Your task to perform on an android device: Search for Italian restaurants on Maps Image 0: 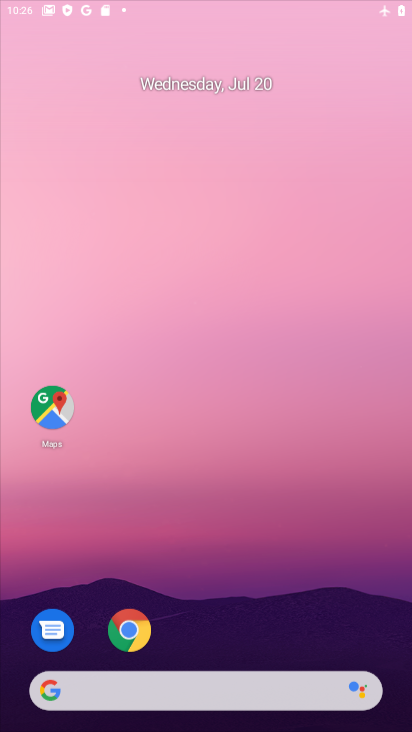
Step 0: click (253, 74)
Your task to perform on an android device: Search for Italian restaurants on Maps Image 1: 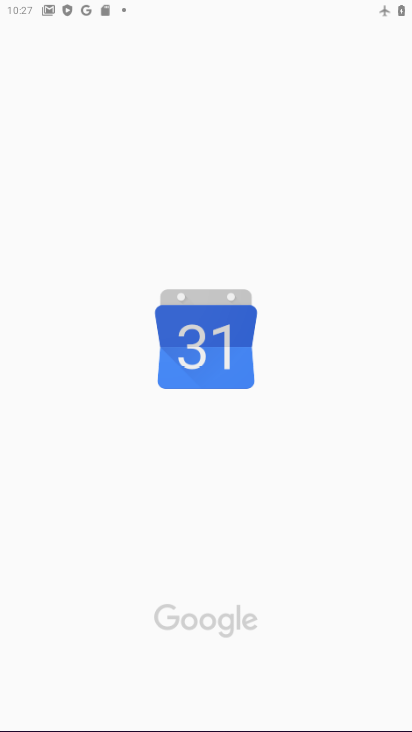
Step 1: drag from (193, 606) to (202, 104)
Your task to perform on an android device: Search for Italian restaurants on Maps Image 2: 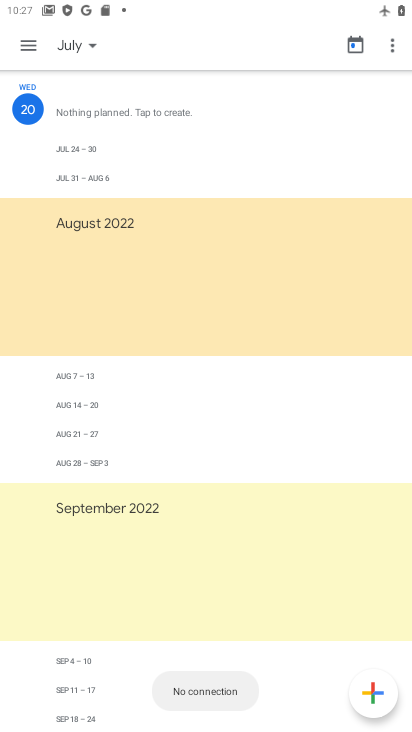
Step 2: press home button
Your task to perform on an android device: Search for Italian restaurants on Maps Image 3: 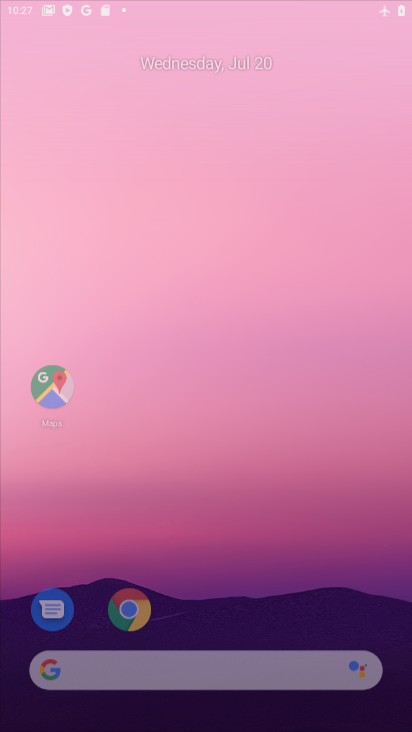
Step 3: drag from (232, 645) to (275, 105)
Your task to perform on an android device: Search for Italian restaurants on Maps Image 4: 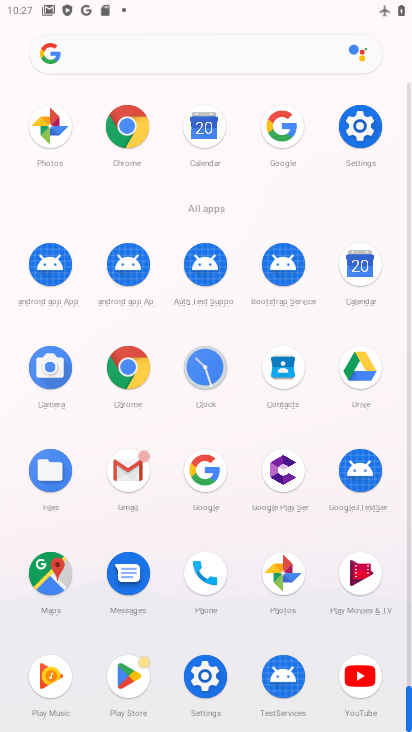
Step 4: click (52, 573)
Your task to perform on an android device: Search for Italian restaurants on Maps Image 5: 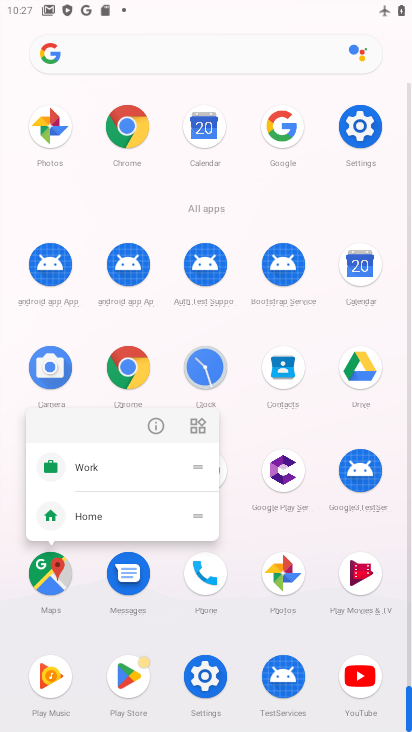
Step 5: click (161, 429)
Your task to perform on an android device: Search for Italian restaurants on Maps Image 6: 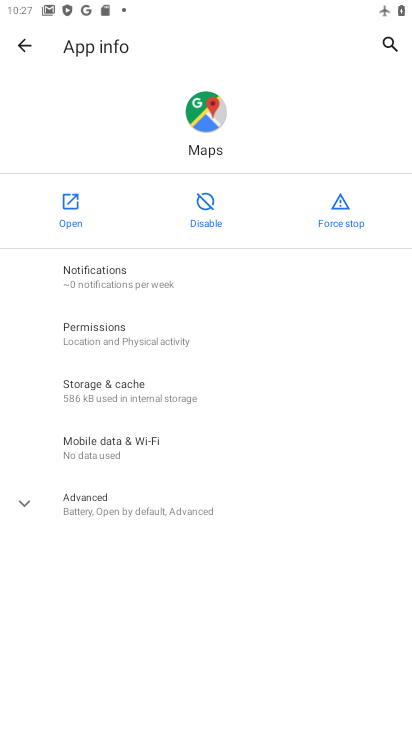
Step 6: click (64, 199)
Your task to perform on an android device: Search for Italian restaurants on Maps Image 7: 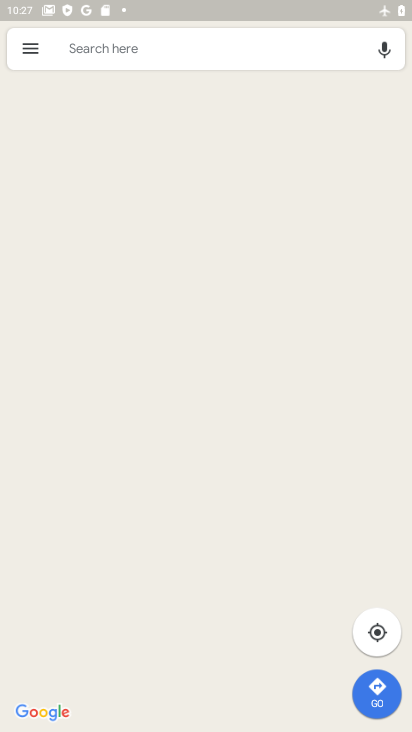
Step 7: click (136, 41)
Your task to perform on an android device: Search for Italian restaurants on Maps Image 8: 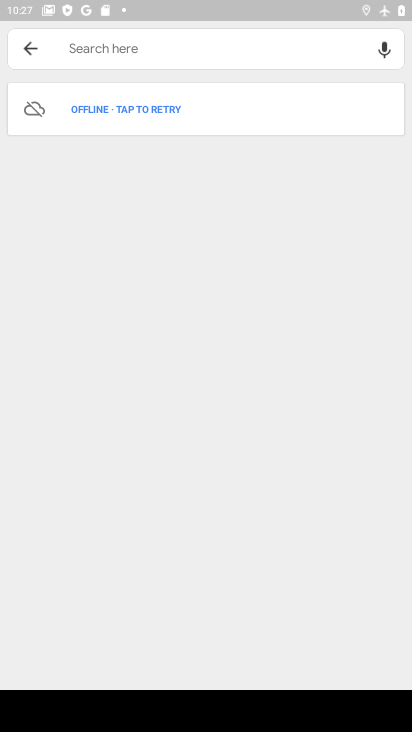
Step 8: type "Italian restaurants"
Your task to perform on an android device: Search for Italian restaurants on Maps Image 9: 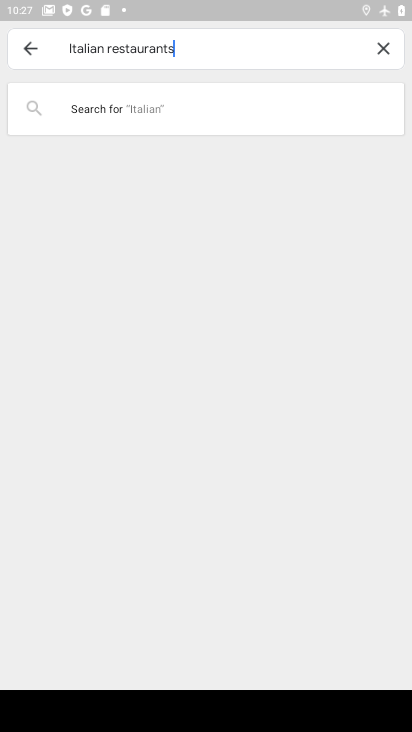
Step 9: type ""
Your task to perform on an android device: Search for Italian restaurants on Maps Image 10: 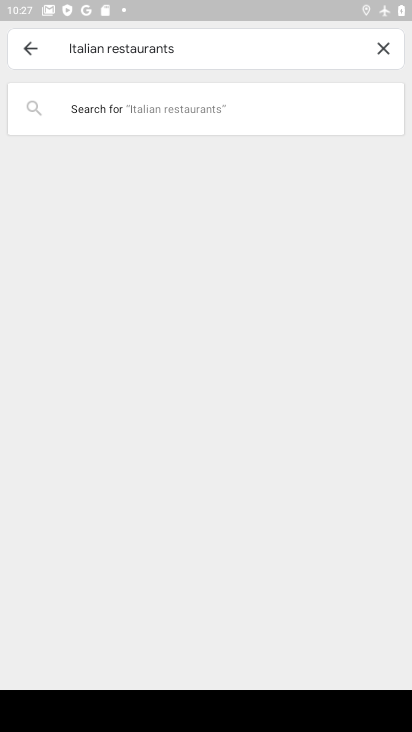
Step 10: click (144, 111)
Your task to perform on an android device: Search for Italian restaurants on Maps Image 11: 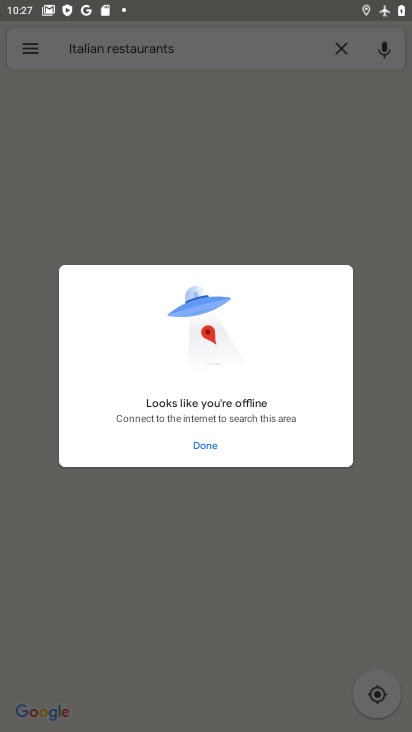
Step 11: task complete